Your task to perform on an android device: find snoozed emails in the gmail app Image 0: 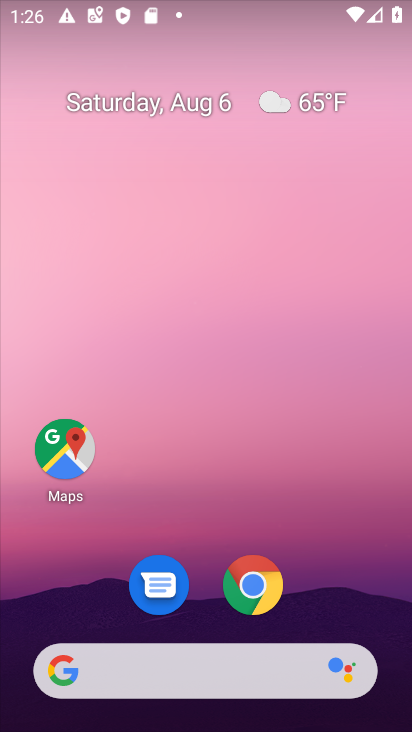
Step 0: drag from (329, 562) to (345, 4)
Your task to perform on an android device: find snoozed emails in the gmail app Image 1: 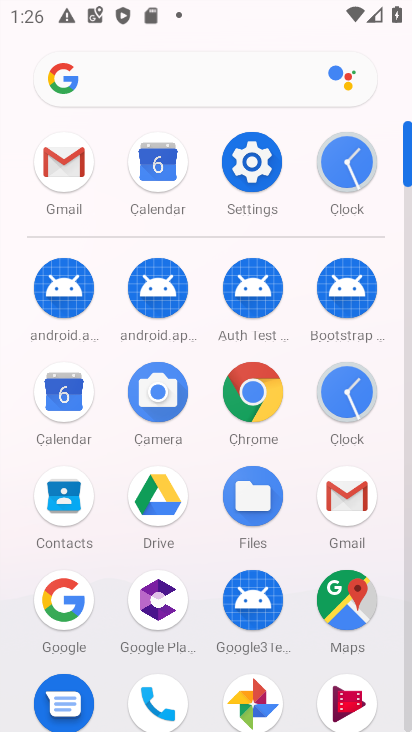
Step 1: click (78, 166)
Your task to perform on an android device: find snoozed emails in the gmail app Image 2: 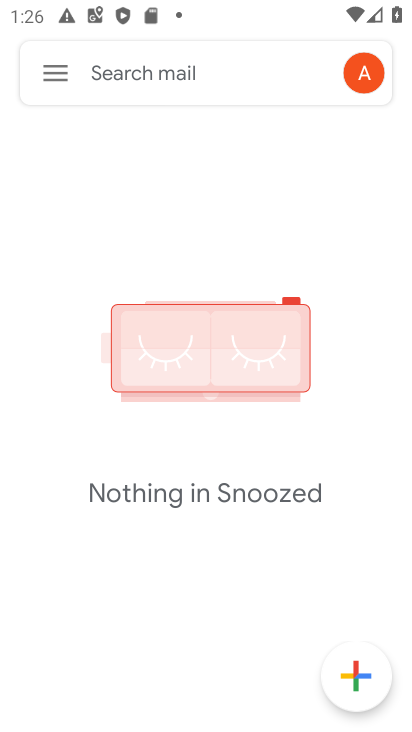
Step 2: click (59, 76)
Your task to perform on an android device: find snoozed emails in the gmail app Image 3: 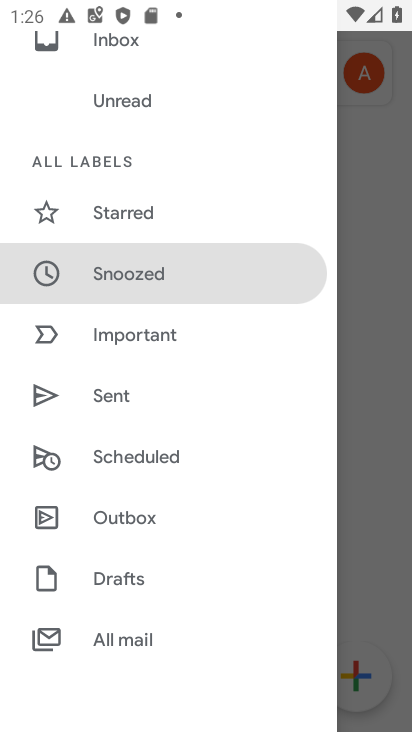
Step 3: click (145, 276)
Your task to perform on an android device: find snoozed emails in the gmail app Image 4: 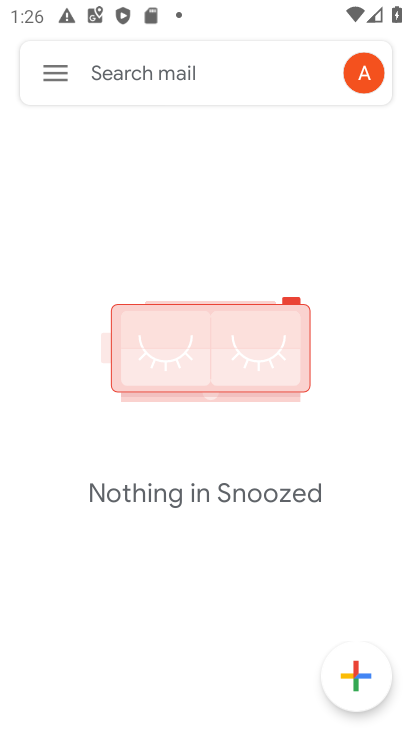
Step 4: task complete